Your task to perform on an android device: Open Yahoo.com Image 0: 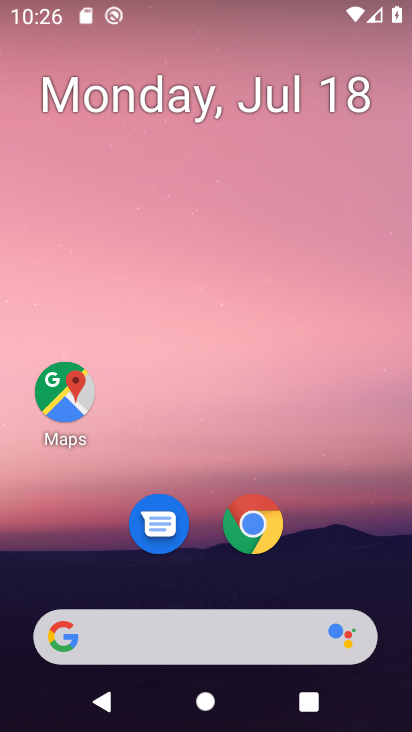
Step 0: click (222, 643)
Your task to perform on an android device: Open Yahoo.com Image 1: 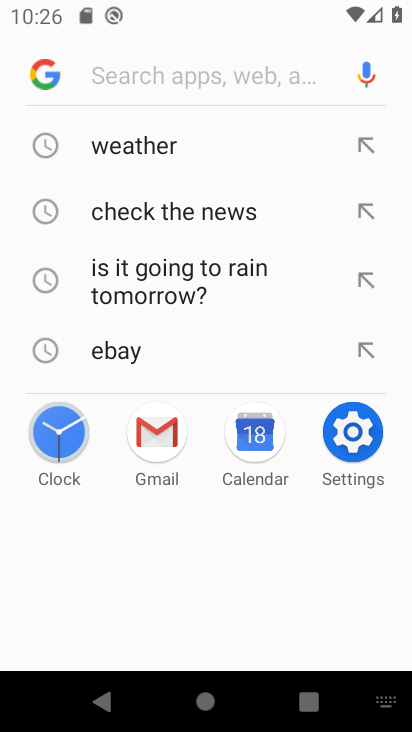
Step 1: type "yahoo.com"
Your task to perform on an android device: Open Yahoo.com Image 2: 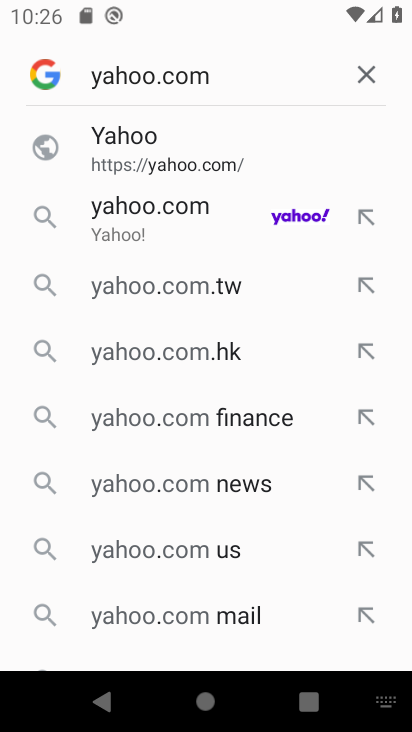
Step 2: click (320, 215)
Your task to perform on an android device: Open Yahoo.com Image 3: 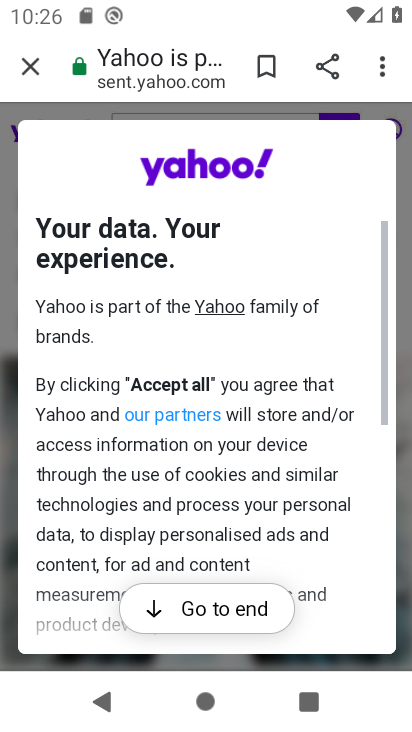
Step 3: click (238, 597)
Your task to perform on an android device: Open Yahoo.com Image 4: 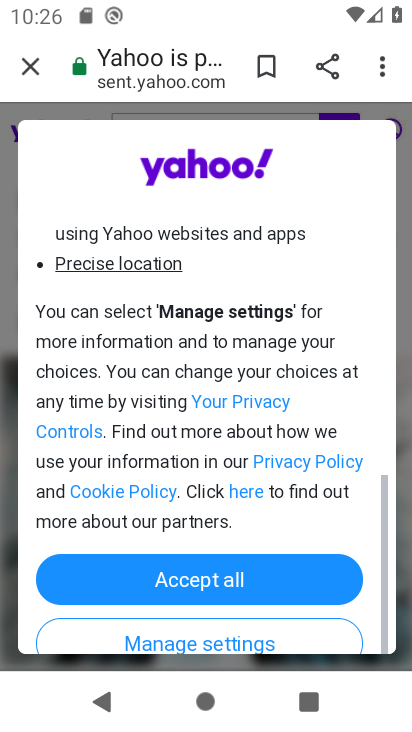
Step 4: click (244, 578)
Your task to perform on an android device: Open Yahoo.com Image 5: 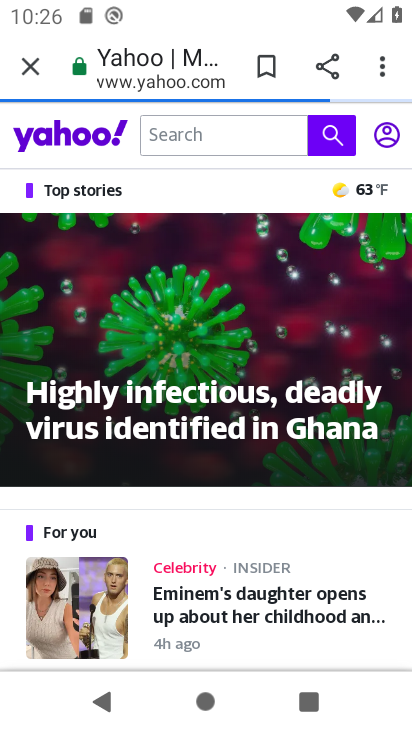
Step 5: task complete